Your task to perform on an android device: When is my next appointment? Image 0: 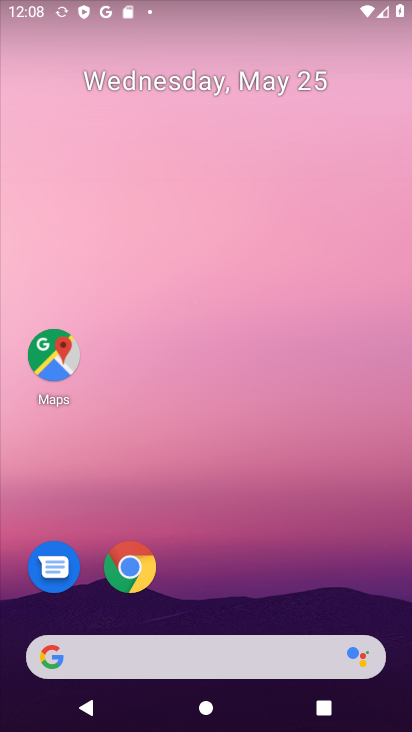
Step 0: drag from (253, 586) to (254, 138)
Your task to perform on an android device: When is my next appointment? Image 1: 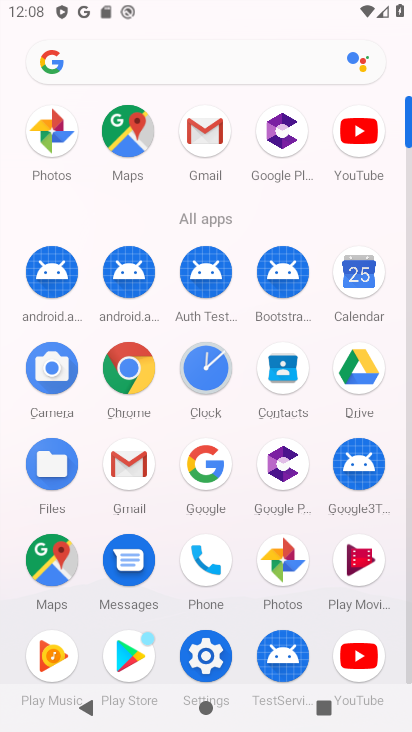
Step 1: click (357, 275)
Your task to perform on an android device: When is my next appointment? Image 2: 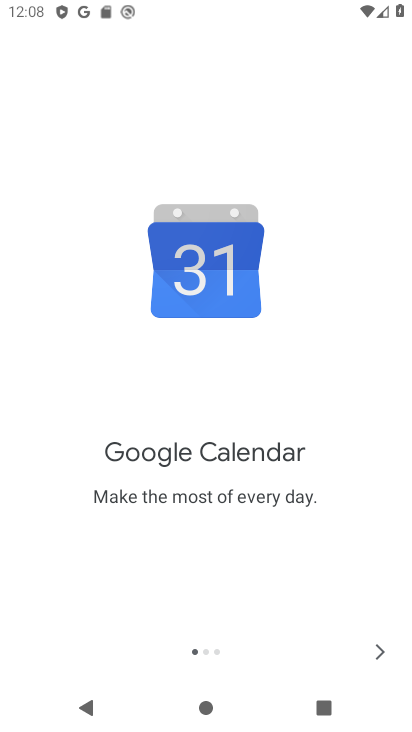
Step 2: click (381, 654)
Your task to perform on an android device: When is my next appointment? Image 3: 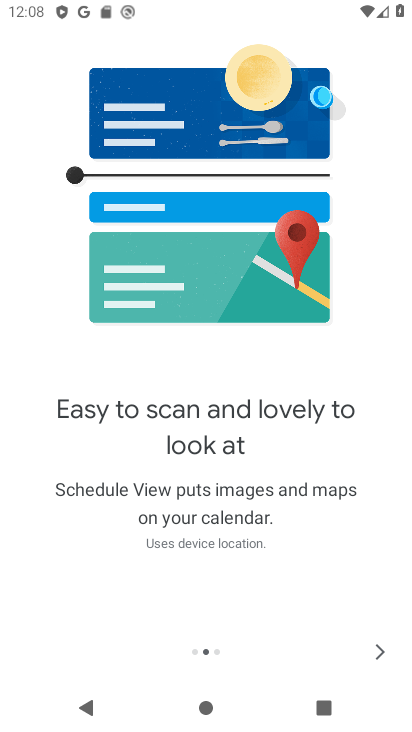
Step 3: click (382, 645)
Your task to perform on an android device: When is my next appointment? Image 4: 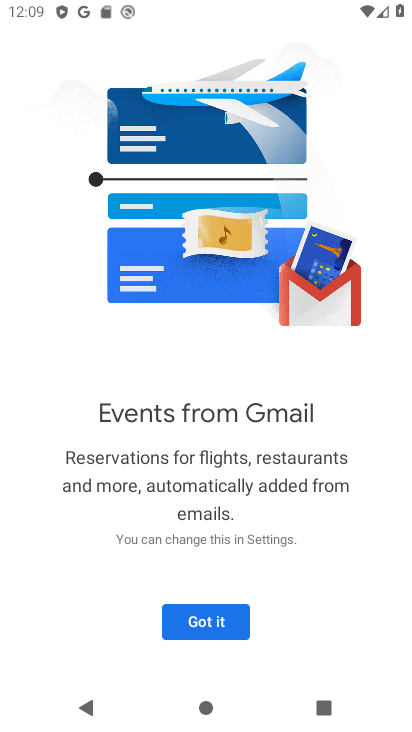
Step 4: click (221, 621)
Your task to perform on an android device: When is my next appointment? Image 5: 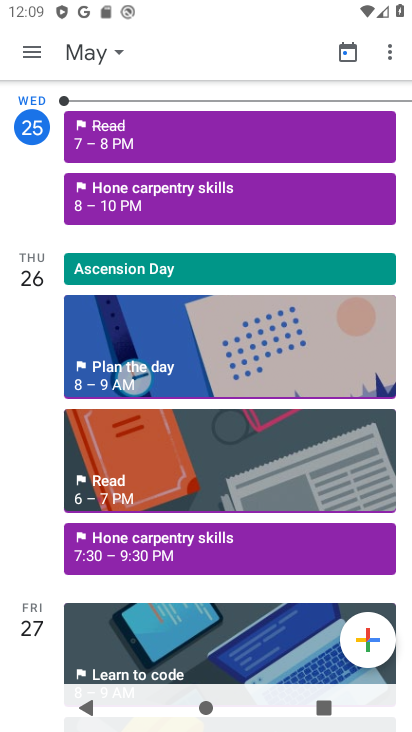
Step 5: click (121, 51)
Your task to perform on an android device: When is my next appointment? Image 6: 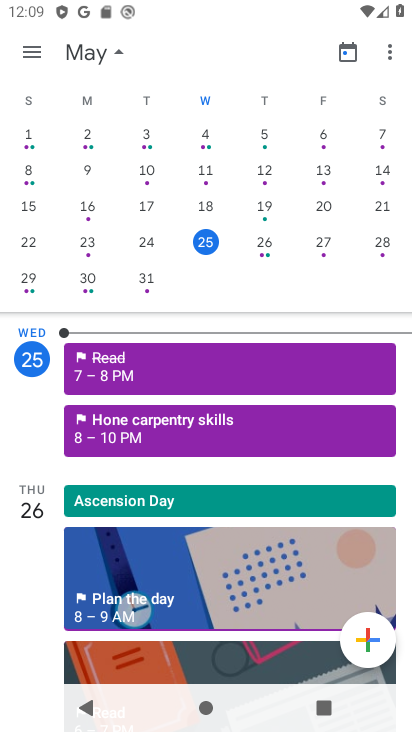
Step 6: click (268, 244)
Your task to perform on an android device: When is my next appointment? Image 7: 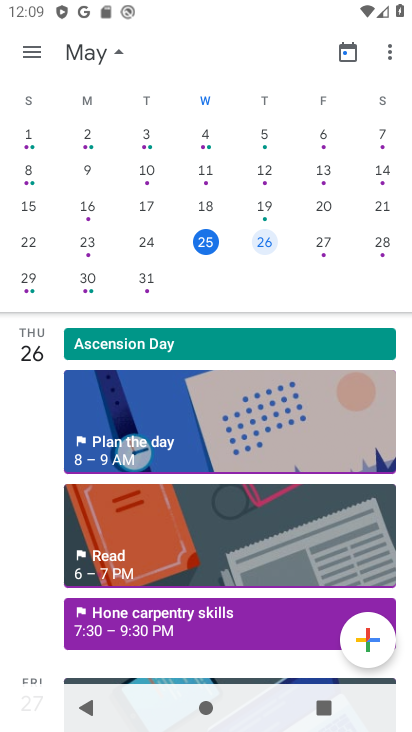
Step 7: click (28, 57)
Your task to perform on an android device: When is my next appointment? Image 8: 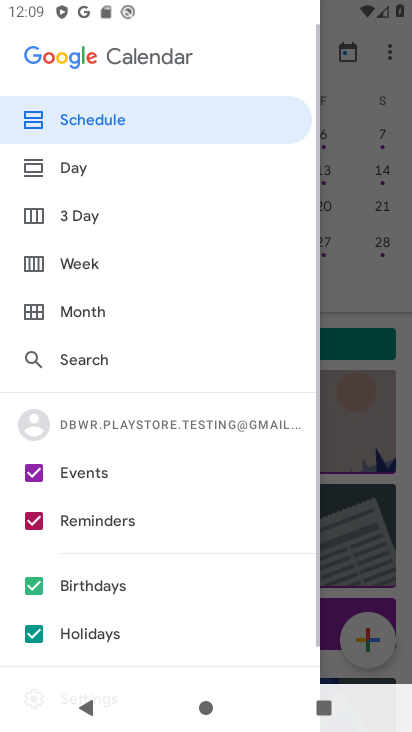
Step 8: click (119, 121)
Your task to perform on an android device: When is my next appointment? Image 9: 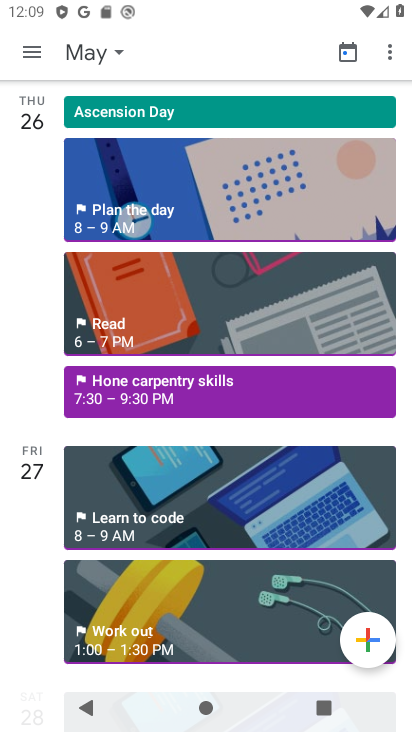
Step 9: task complete